Your task to perform on an android device: Turn on the flashlight Image 0: 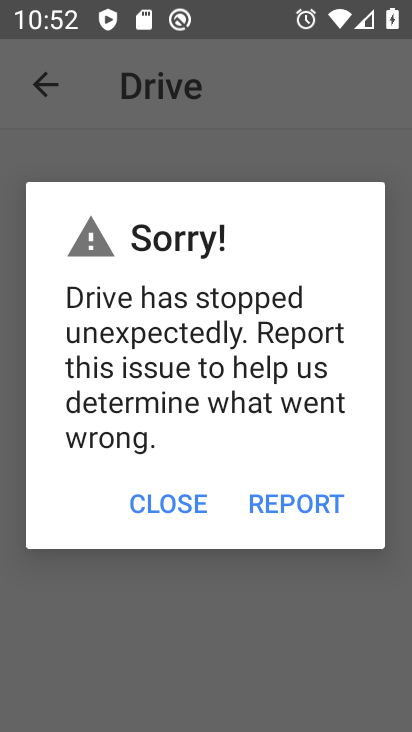
Step 0: drag from (224, 4) to (181, 514)
Your task to perform on an android device: Turn on the flashlight Image 1: 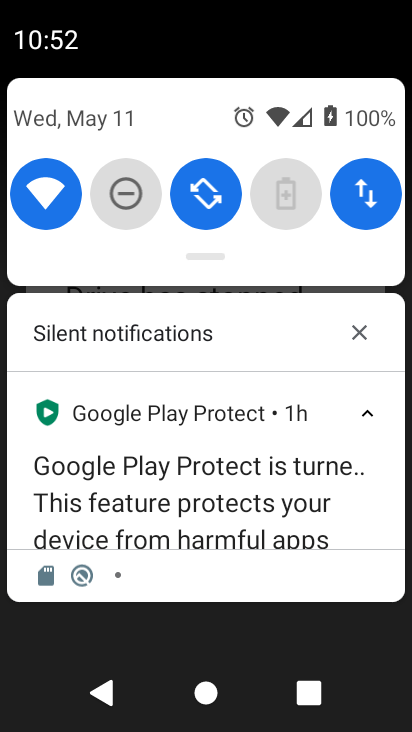
Step 1: task complete